Your task to perform on an android device: see tabs open on other devices in the chrome app Image 0: 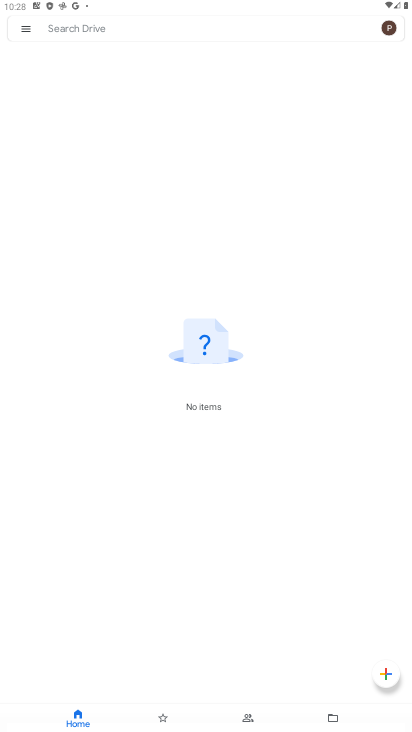
Step 0: task complete